Your task to perform on an android device: Open ESPN.com Image 0: 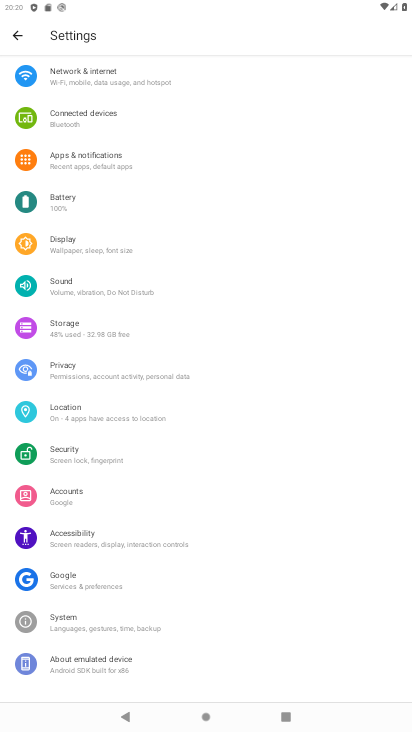
Step 0: press home button
Your task to perform on an android device: Open ESPN.com Image 1: 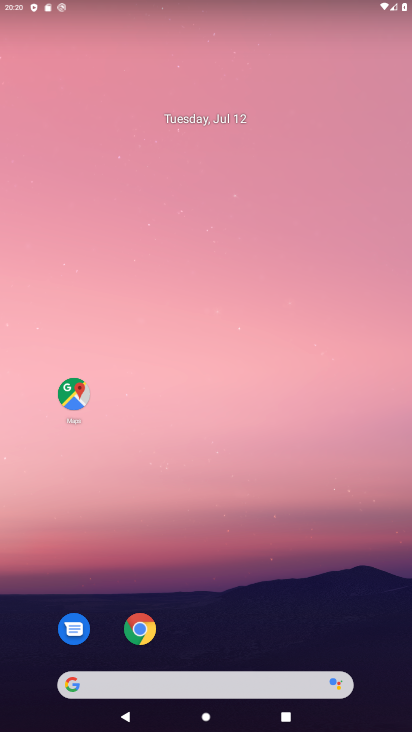
Step 1: click (220, 688)
Your task to perform on an android device: Open ESPN.com Image 2: 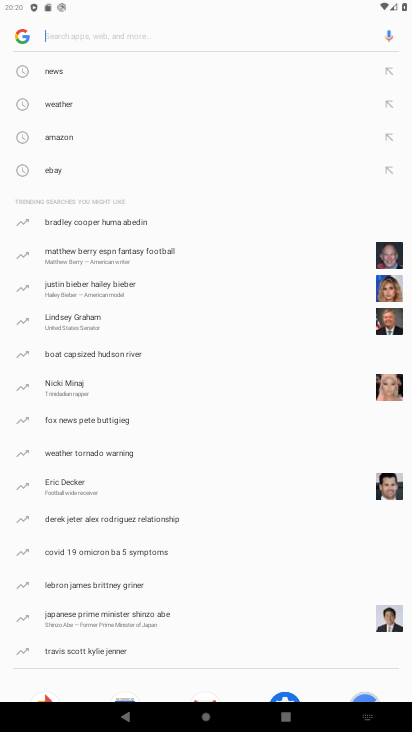
Step 2: type "espn.com"
Your task to perform on an android device: Open ESPN.com Image 3: 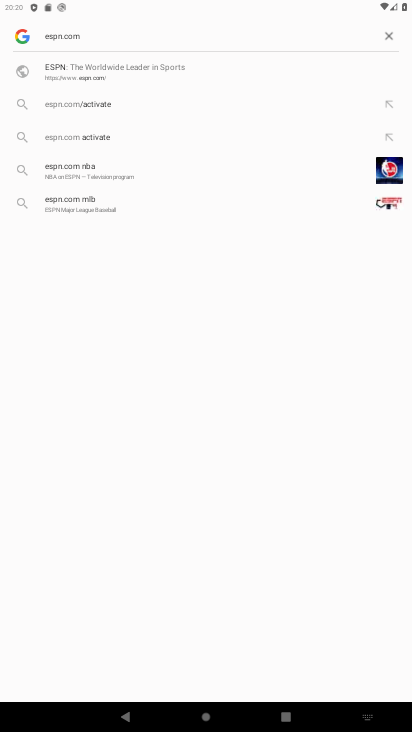
Step 3: click (171, 70)
Your task to perform on an android device: Open ESPN.com Image 4: 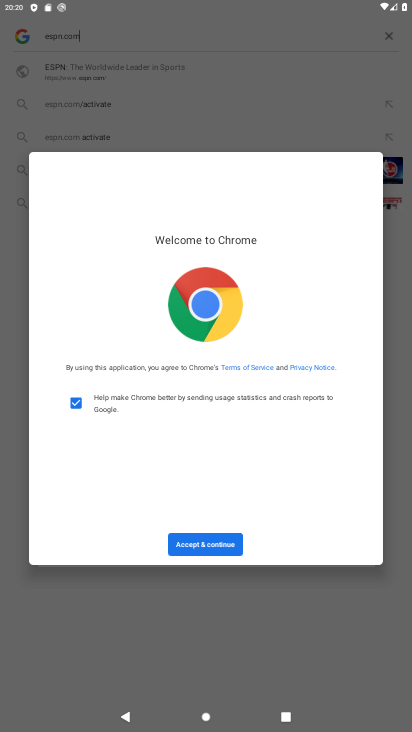
Step 4: click (212, 550)
Your task to perform on an android device: Open ESPN.com Image 5: 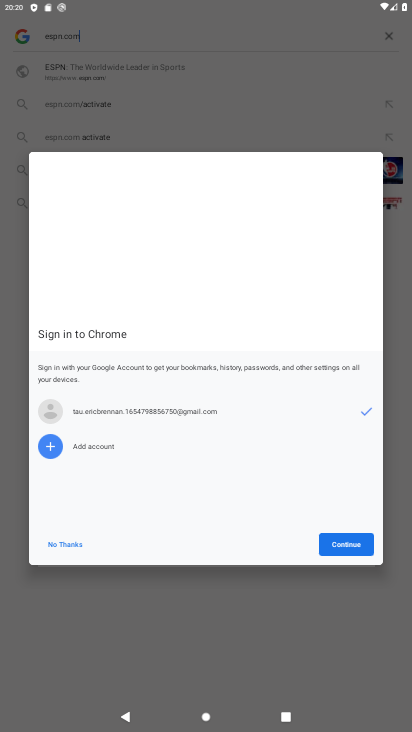
Step 5: click (335, 538)
Your task to perform on an android device: Open ESPN.com Image 6: 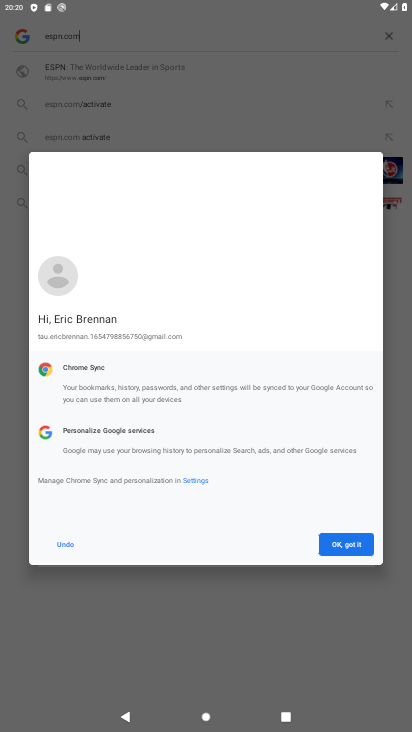
Step 6: click (343, 544)
Your task to perform on an android device: Open ESPN.com Image 7: 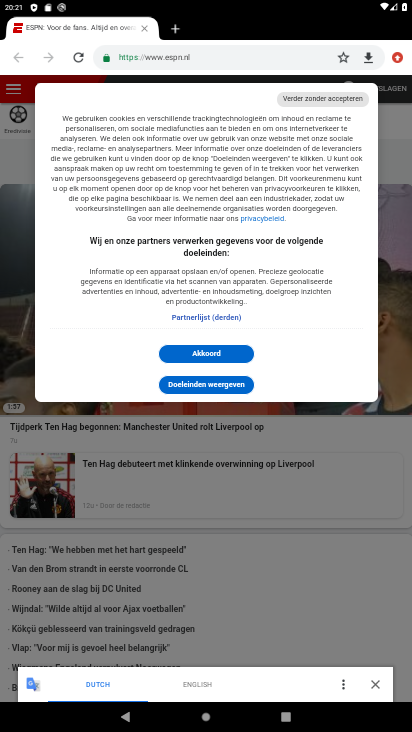
Step 7: task complete